Your task to perform on an android device: Open Chrome and go to the settings page Image 0: 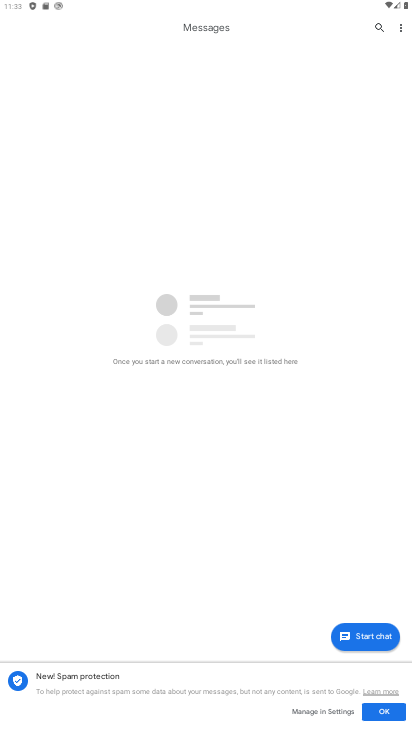
Step 0: press home button
Your task to perform on an android device: Open Chrome and go to the settings page Image 1: 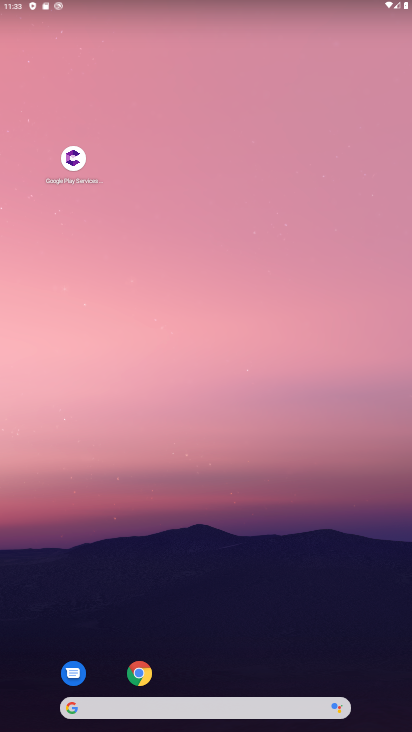
Step 1: click (141, 672)
Your task to perform on an android device: Open Chrome and go to the settings page Image 2: 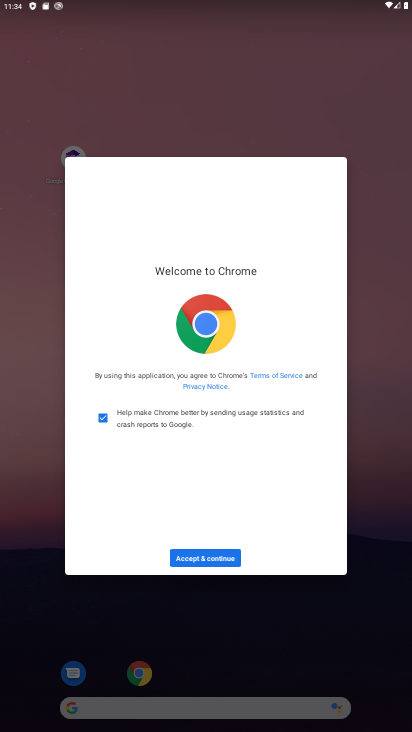
Step 2: click (215, 557)
Your task to perform on an android device: Open Chrome and go to the settings page Image 3: 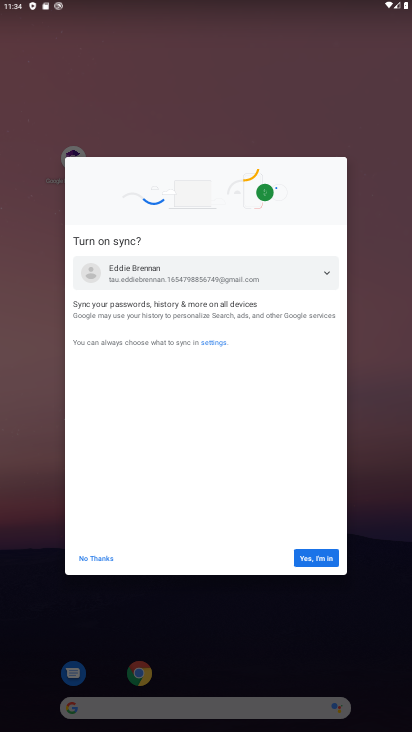
Step 3: click (319, 558)
Your task to perform on an android device: Open Chrome and go to the settings page Image 4: 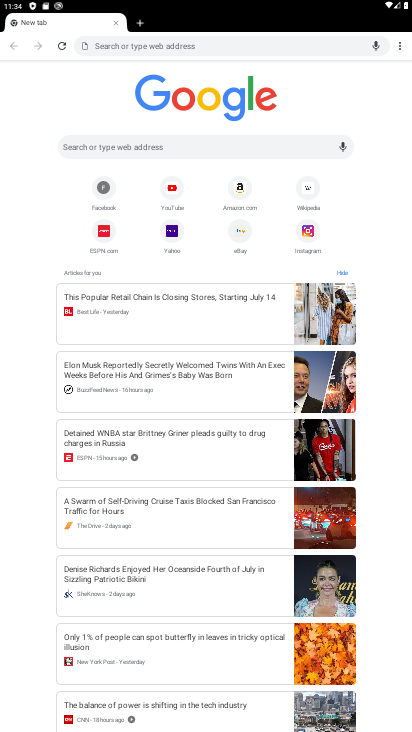
Step 4: click (402, 47)
Your task to perform on an android device: Open Chrome and go to the settings page Image 5: 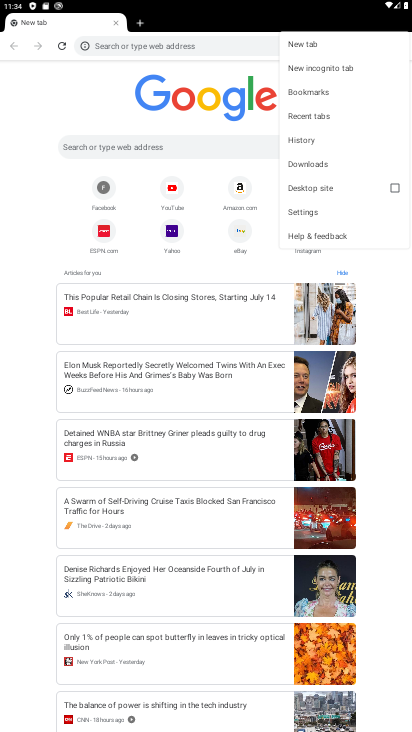
Step 5: click (305, 211)
Your task to perform on an android device: Open Chrome and go to the settings page Image 6: 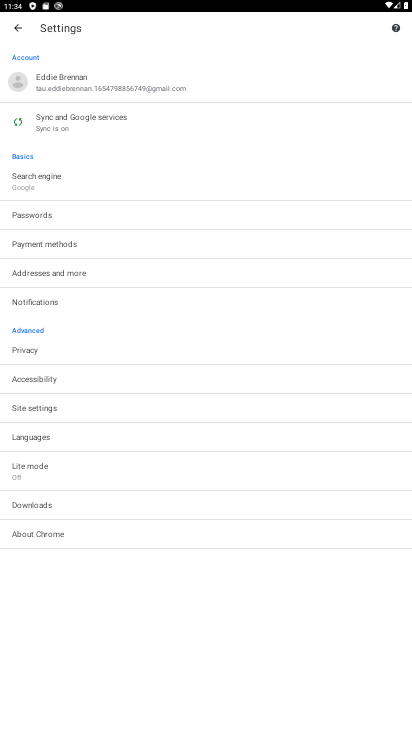
Step 6: task complete